Your task to perform on an android device: Is it going to rain tomorrow? Image 0: 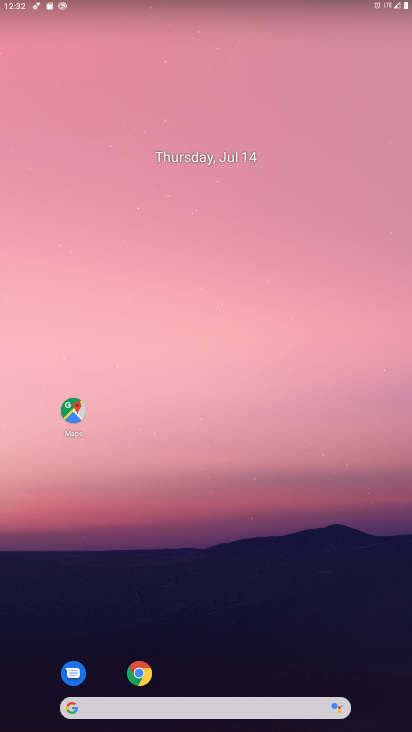
Step 0: click (208, 701)
Your task to perform on an android device: Is it going to rain tomorrow? Image 1: 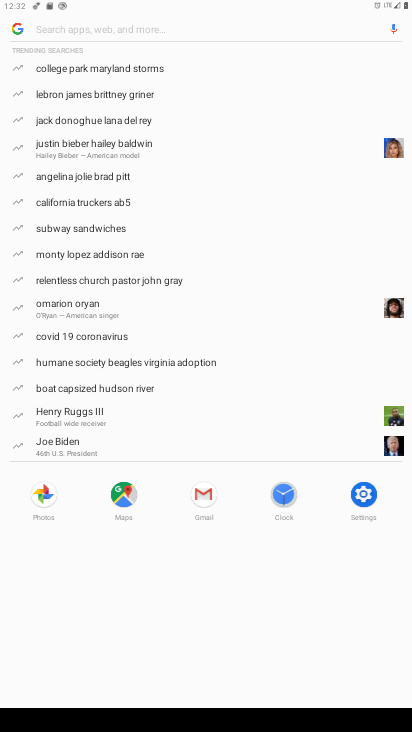
Step 1: type "weather"
Your task to perform on an android device: Is it going to rain tomorrow? Image 2: 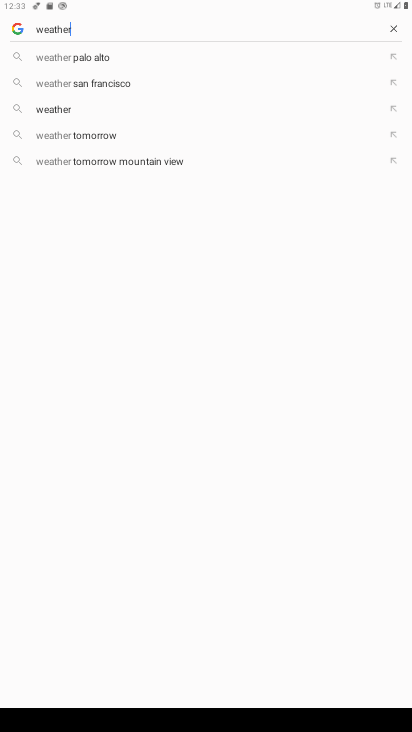
Step 2: click (63, 108)
Your task to perform on an android device: Is it going to rain tomorrow? Image 3: 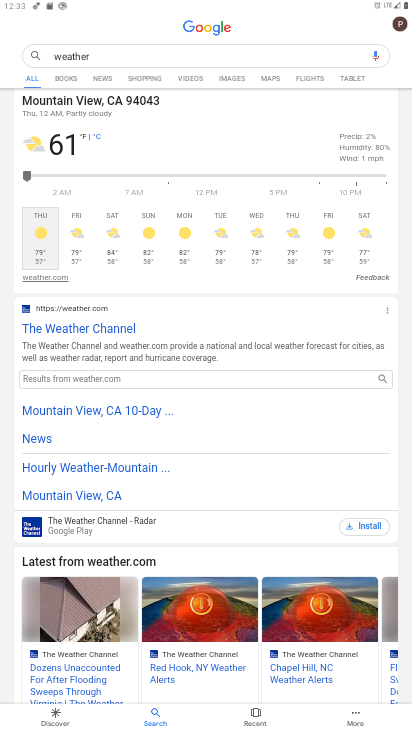
Step 3: click (76, 229)
Your task to perform on an android device: Is it going to rain tomorrow? Image 4: 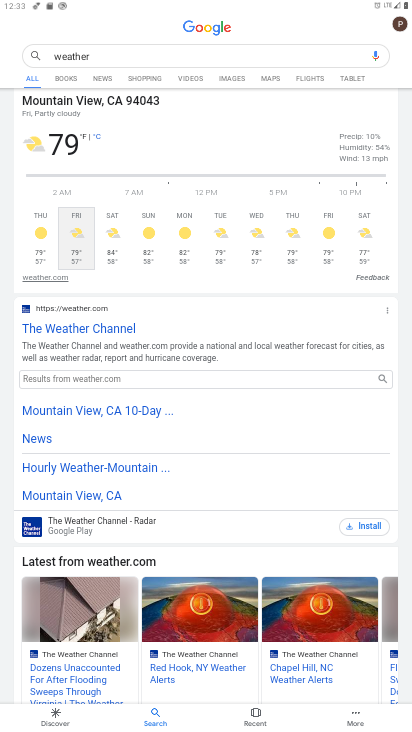
Step 4: task complete